Your task to perform on an android device: Search for flights from Buenos aires to Seoul Image 0: 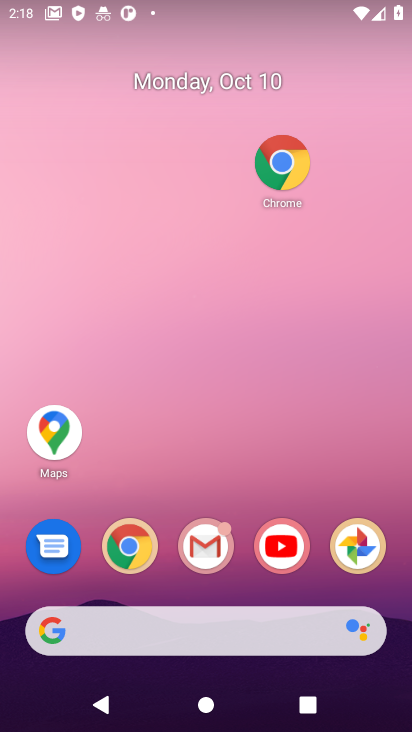
Step 0: click (122, 543)
Your task to perform on an android device: Search for flights from Buenos aires to Seoul Image 1: 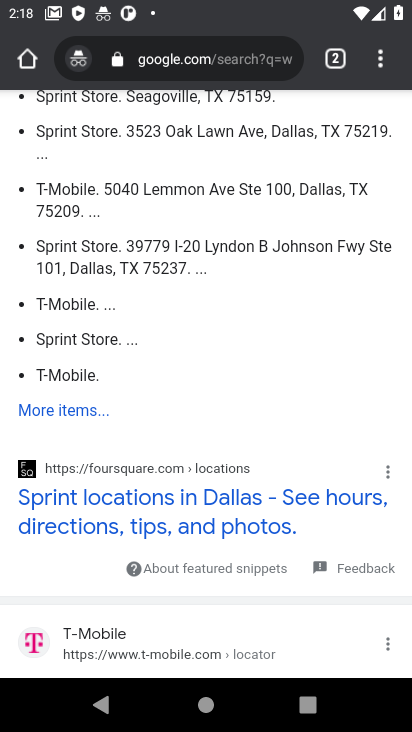
Step 1: click (213, 51)
Your task to perform on an android device: Search for flights from Buenos aires to Seoul Image 2: 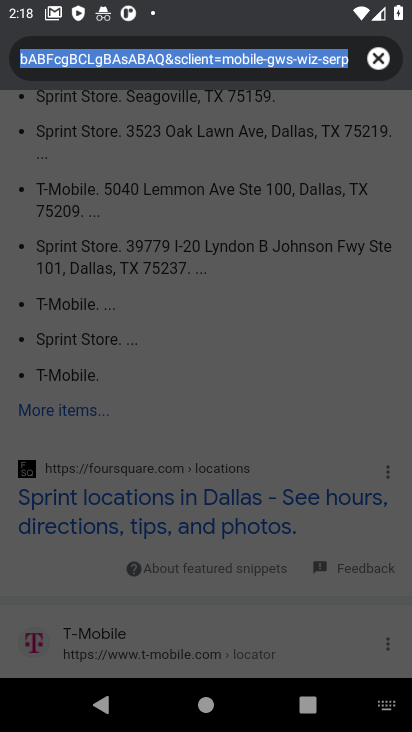
Step 2: click (376, 57)
Your task to perform on an android device: Search for flights from Buenos aires to Seoul Image 3: 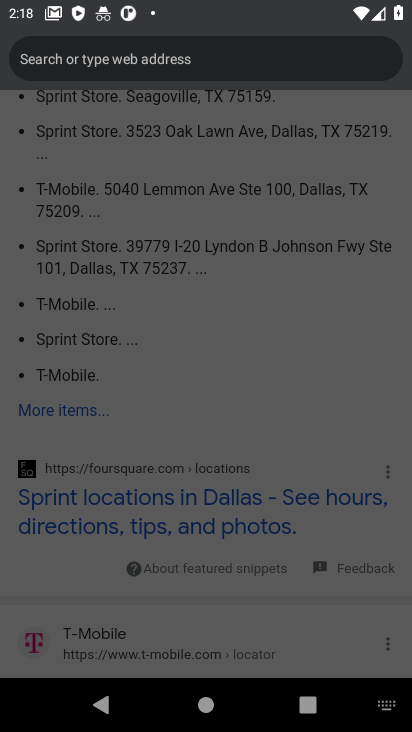
Step 3: type "Search for flights from Buenos aires to Seoul"
Your task to perform on an android device: Search for flights from Buenos aires to Seoul Image 4: 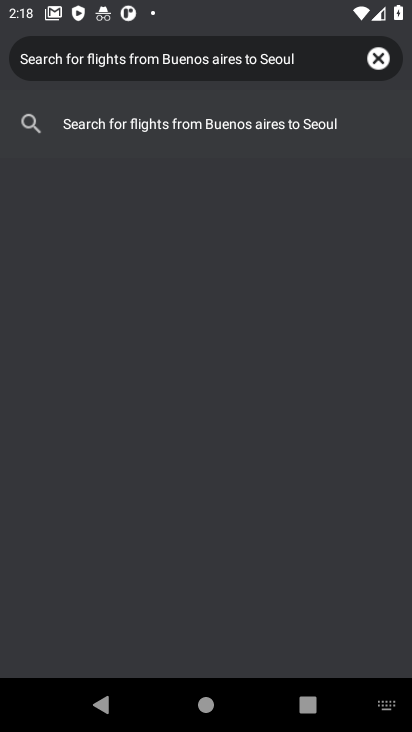
Step 4: click (217, 144)
Your task to perform on an android device: Search for flights from Buenos aires to Seoul Image 5: 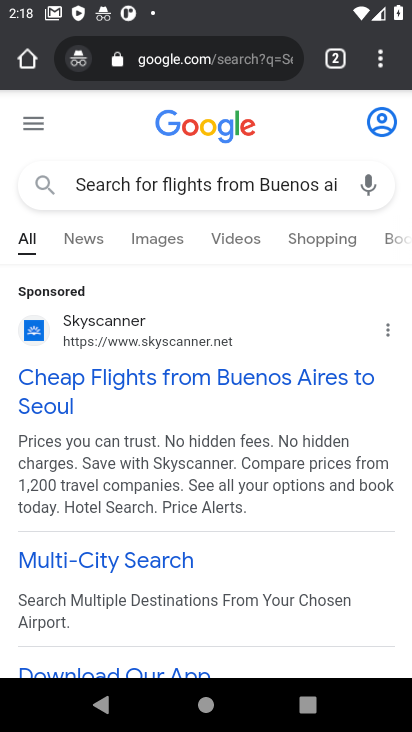
Step 5: click (197, 368)
Your task to perform on an android device: Search for flights from Buenos aires to Seoul Image 6: 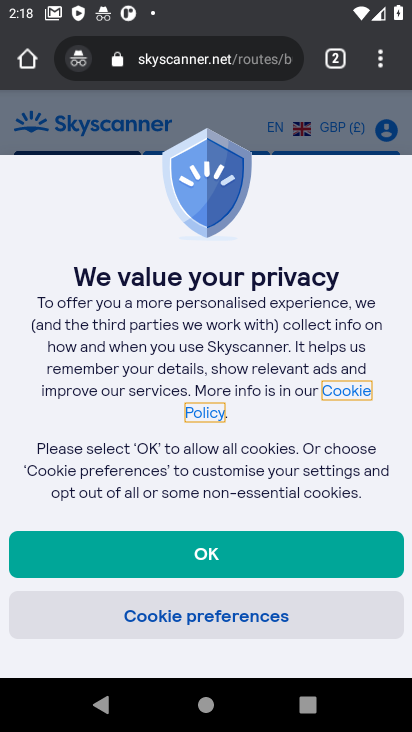
Step 6: click (174, 565)
Your task to perform on an android device: Search for flights from Buenos aires to Seoul Image 7: 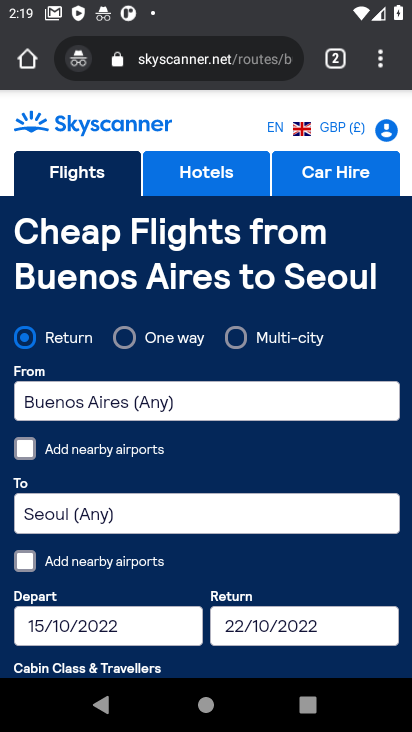
Step 7: drag from (174, 565) to (255, 174)
Your task to perform on an android device: Search for flights from Buenos aires to Seoul Image 8: 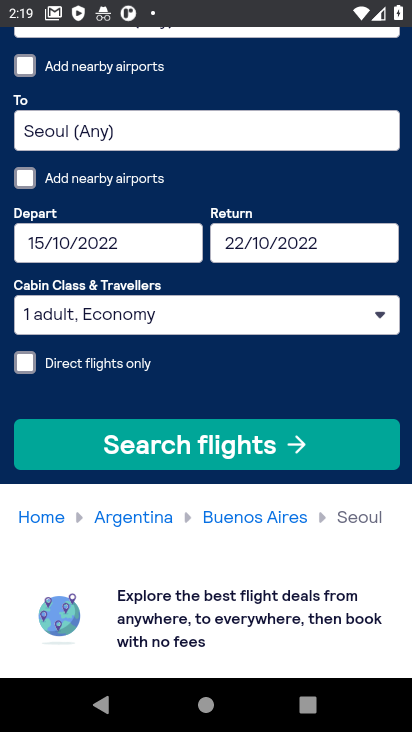
Step 8: click (205, 472)
Your task to perform on an android device: Search for flights from Buenos aires to Seoul Image 9: 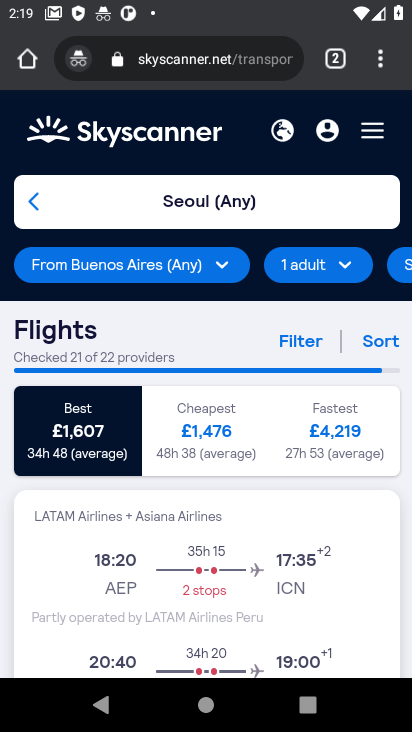
Step 9: task complete